Your task to perform on an android device: toggle wifi Image 0: 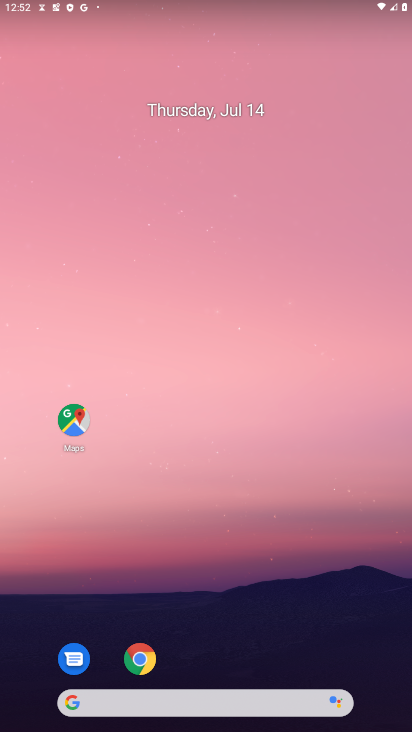
Step 0: drag from (29, 669) to (312, 45)
Your task to perform on an android device: toggle wifi Image 1: 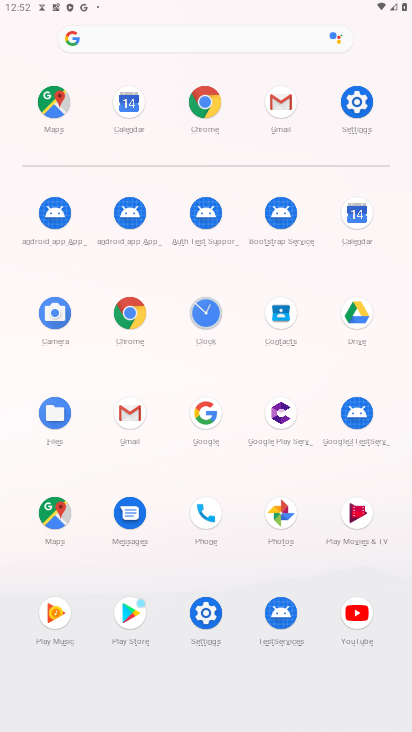
Step 1: click (218, 619)
Your task to perform on an android device: toggle wifi Image 2: 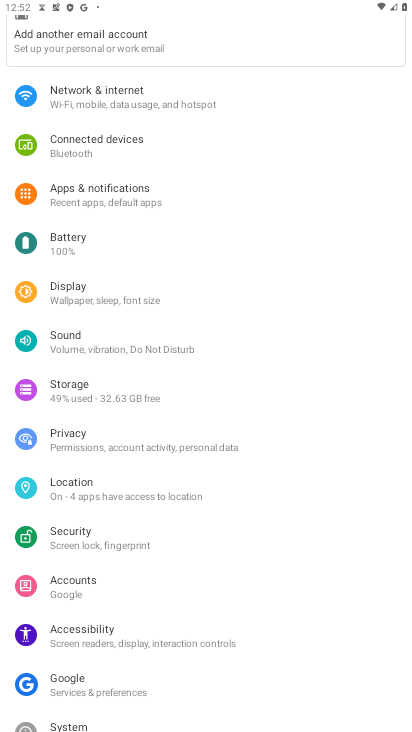
Step 2: click (108, 96)
Your task to perform on an android device: toggle wifi Image 3: 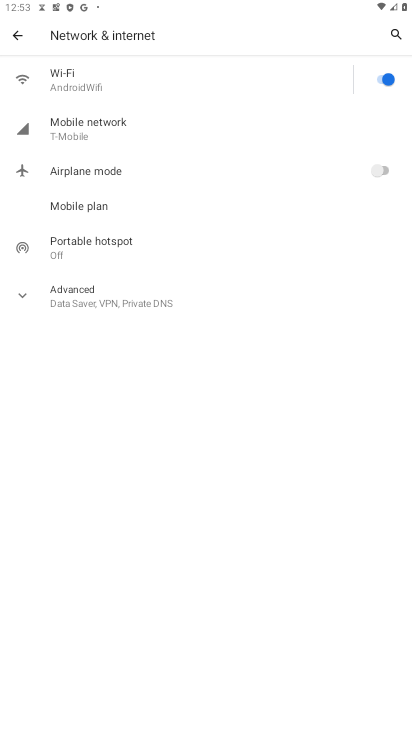
Step 3: task complete